Your task to perform on an android device: turn off smart reply in the gmail app Image 0: 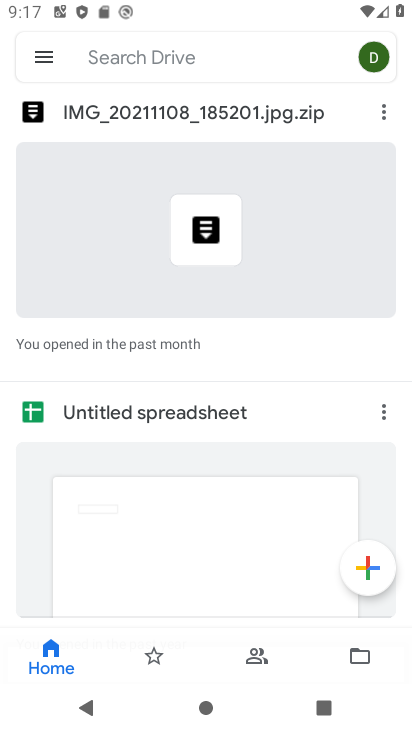
Step 0: press home button
Your task to perform on an android device: turn off smart reply in the gmail app Image 1: 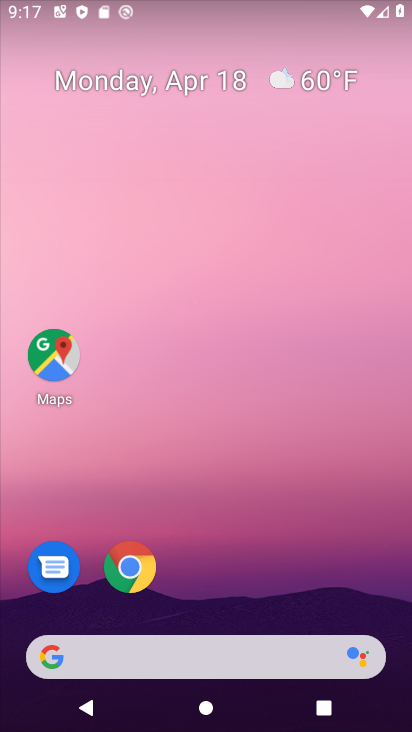
Step 1: drag from (202, 570) to (256, 5)
Your task to perform on an android device: turn off smart reply in the gmail app Image 2: 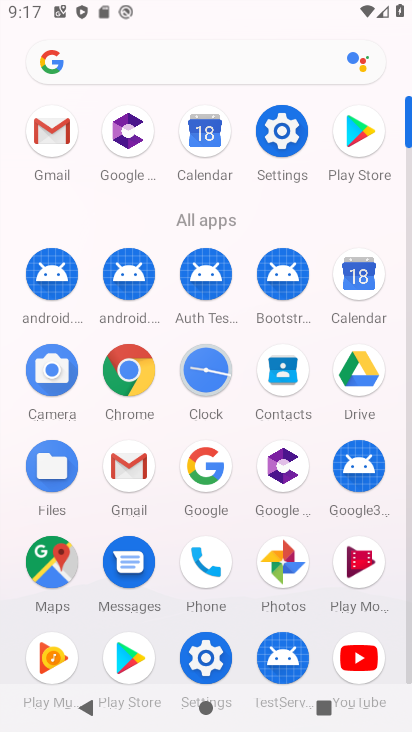
Step 2: click (127, 484)
Your task to perform on an android device: turn off smart reply in the gmail app Image 3: 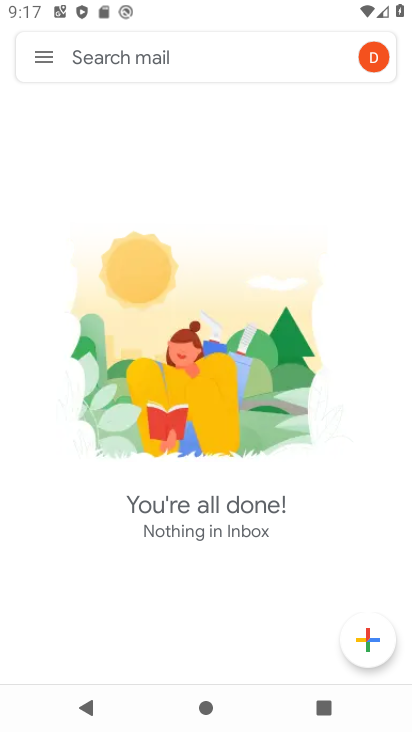
Step 3: click (42, 53)
Your task to perform on an android device: turn off smart reply in the gmail app Image 4: 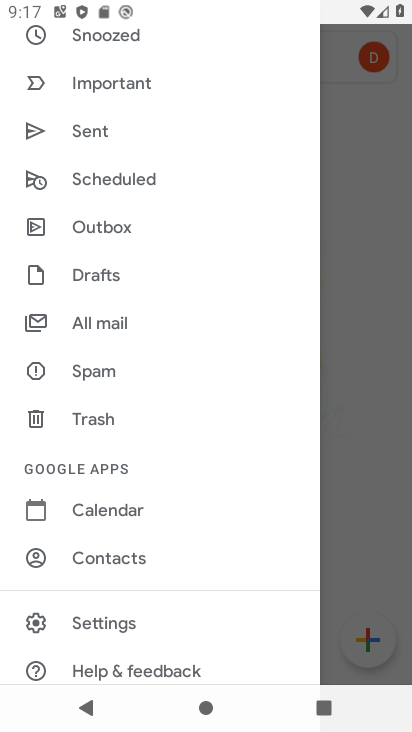
Step 4: click (124, 624)
Your task to perform on an android device: turn off smart reply in the gmail app Image 5: 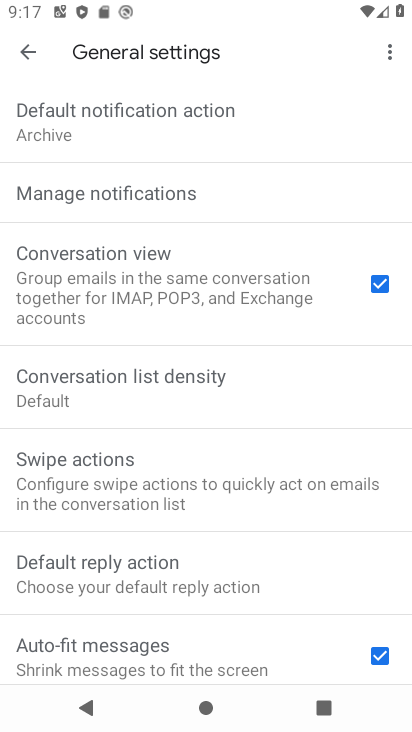
Step 5: click (21, 59)
Your task to perform on an android device: turn off smart reply in the gmail app Image 6: 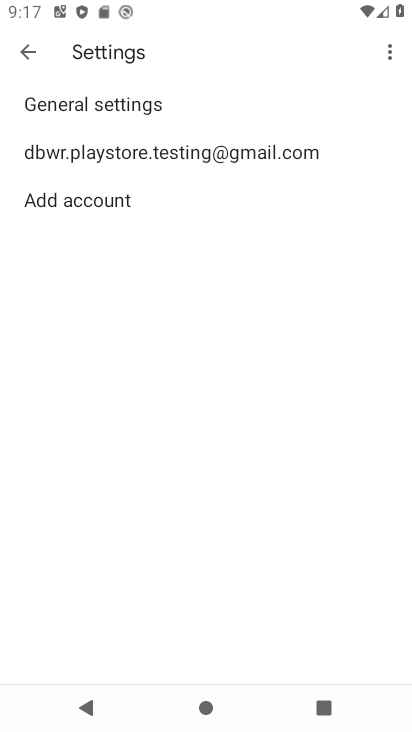
Step 6: click (106, 156)
Your task to perform on an android device: turn off smart reply in the gmail app Image 7: 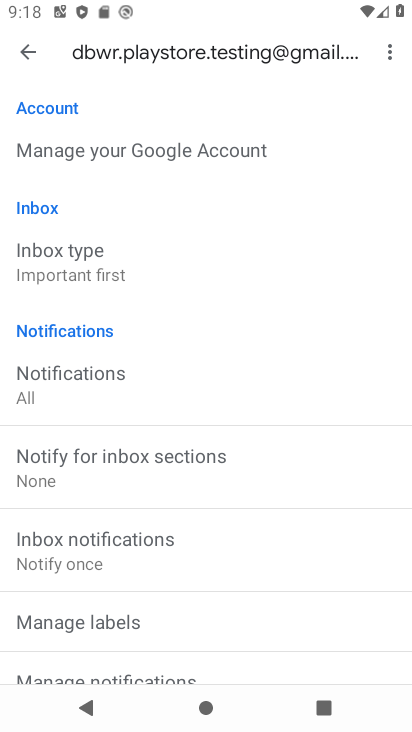
Step 7: drag from (156, 482) to (252, 136)
Your task to perform on an android device: turn off smart reply in the gmail app Image 8: 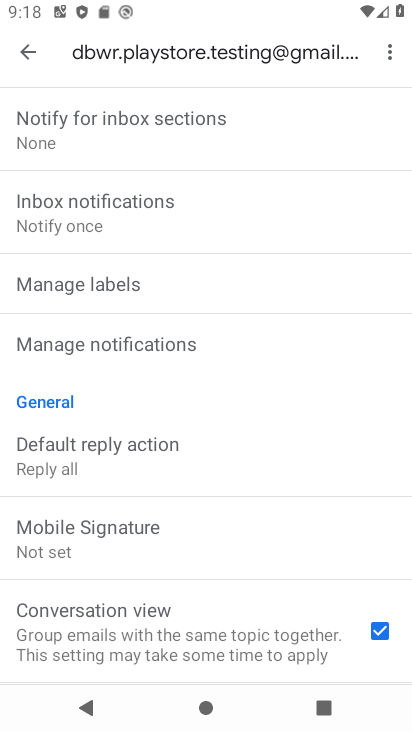
Step 8: drag from (180, 492) to (247, 269)
Your task to perform on an android device: turn off smart reply in the gmail app Image 9: 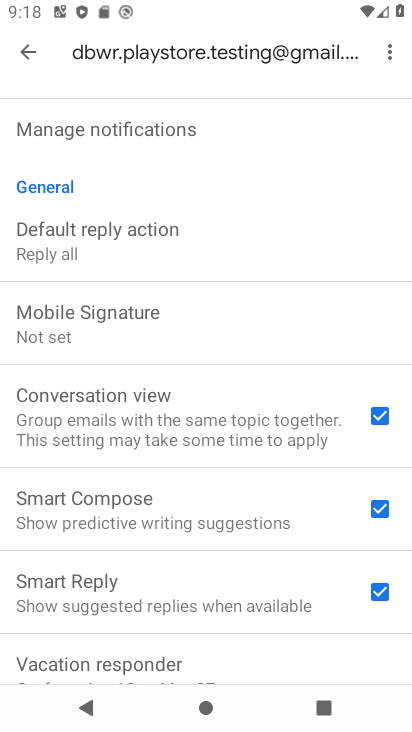
Step 9: click (378, 592)
Your task to perform on an android device: turn off smart reply in the gmail app Image 10: 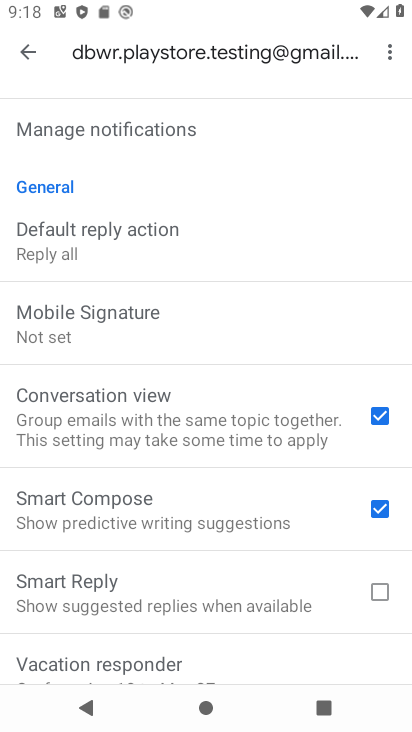
Step 10: task complete